Your task to perform on an android device: delete a single message in the gmail app Image 0: 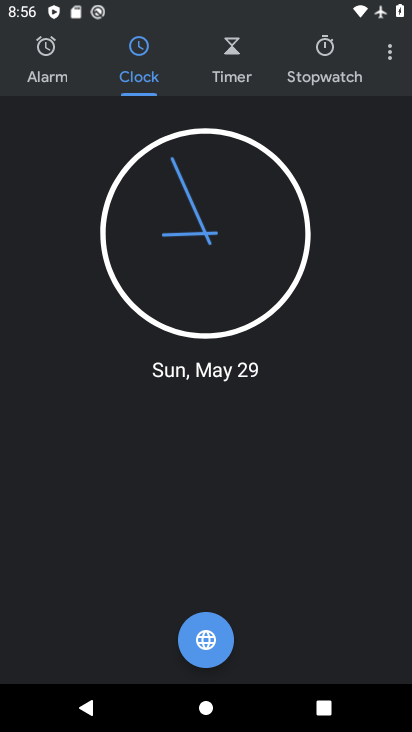
Step 0: press home button
Your task to perform on an android device: delete a single message in the gmail app Image 1: 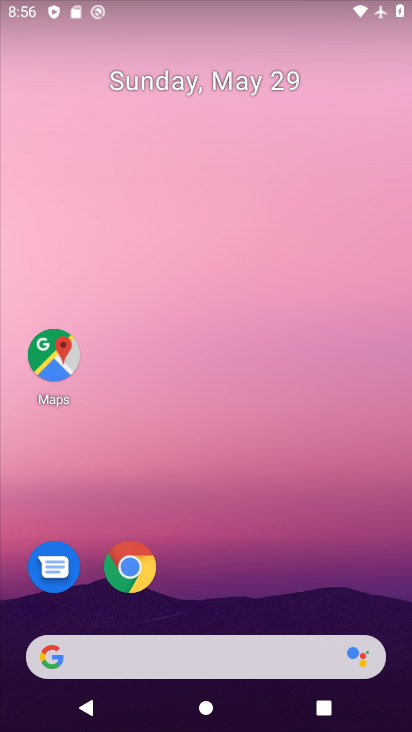
Step 1: drag from (381, 607) to (351, 57)
Your task to perform on an android device: delete a single message in the gmail app Image 2: 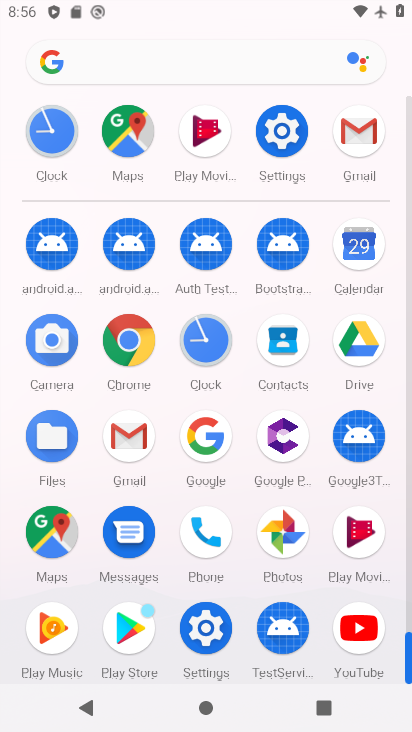
Step 2: click (409, 619)
Your task to perform on an android device: delete a single message in the gmail app Image 3: 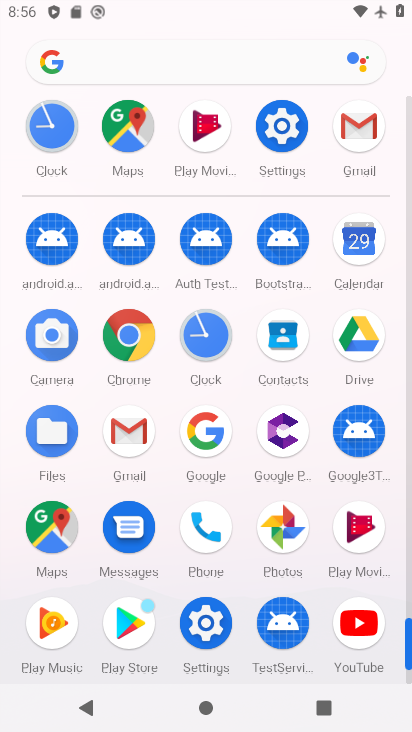
Step 3: click (130, 431)
Your task to perform on an android device: delete a single message in the gmail app Image 4: 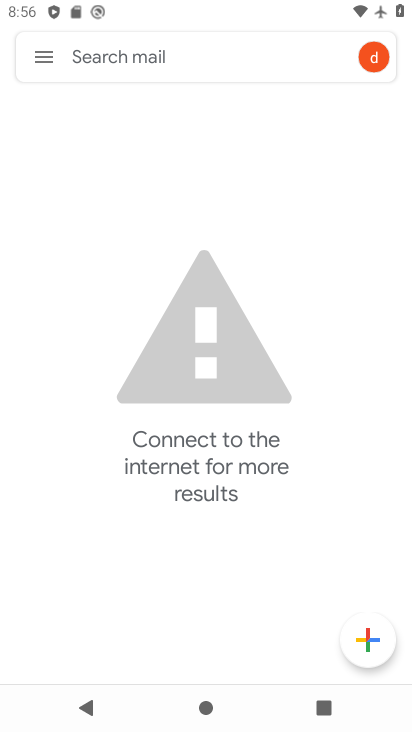
Step 4: click (43, 61)
Your task to perform on an android device: delete a single message in the gmail app Image 5: 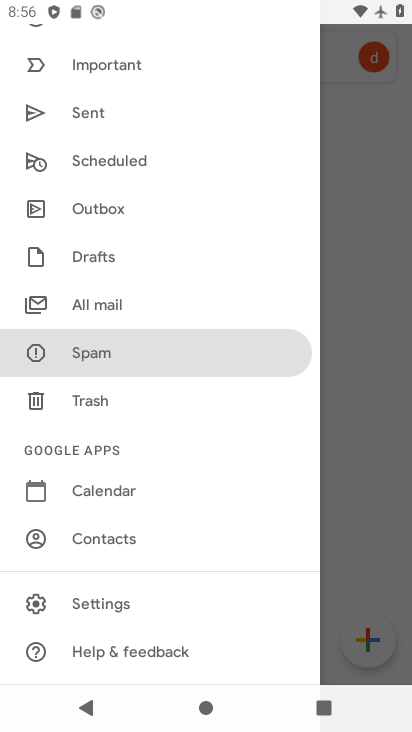
Step 5: click (90, 300)
Your task to perform on an android device: delete a single message in the gmail app Image 6: 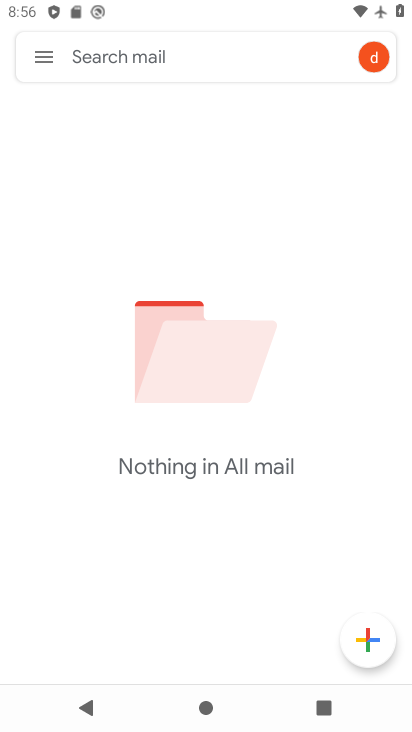
Step 6: task complete